Your task to perform on an android device: Clear the cart on costco.com. Image 0: 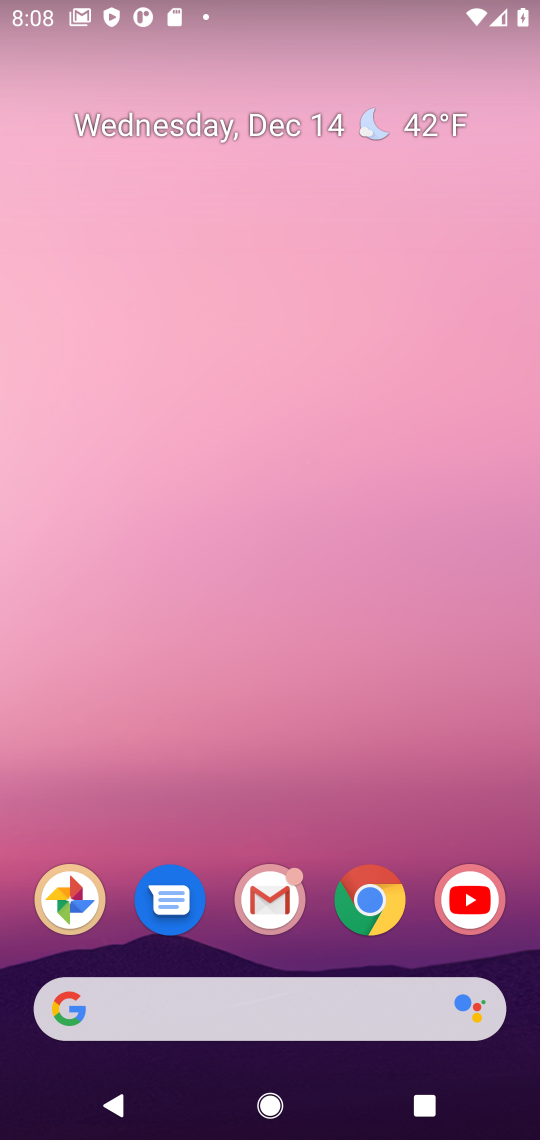
Step 0: click (368, 910)
Your task to perform on an android device: Clear the cart on costco.com. Image 1: 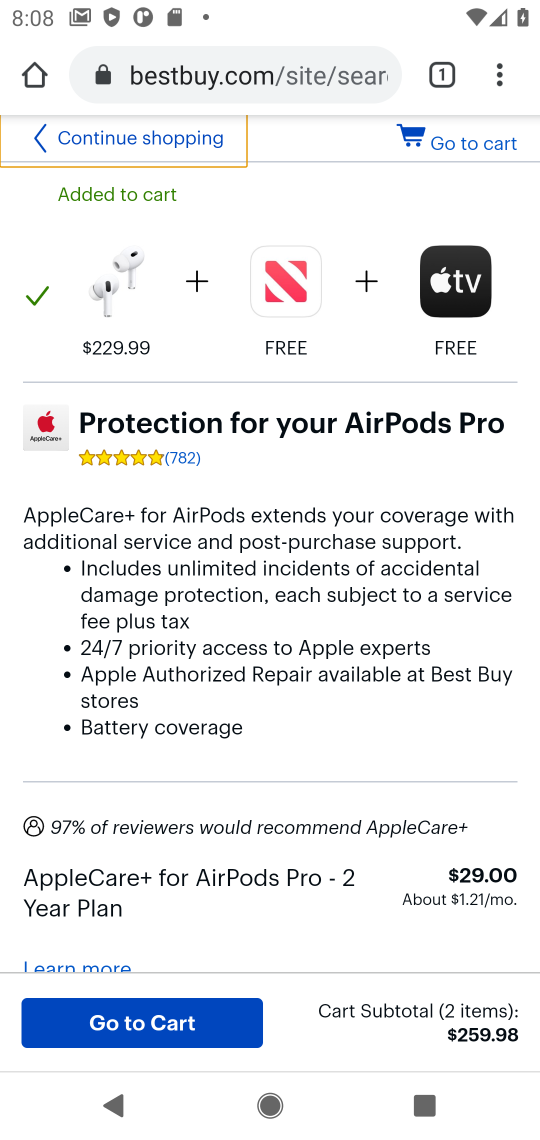
Step 1: click (193, 75)
Your task to perform on an android device: Clear the cart on costco.com. Image 2: 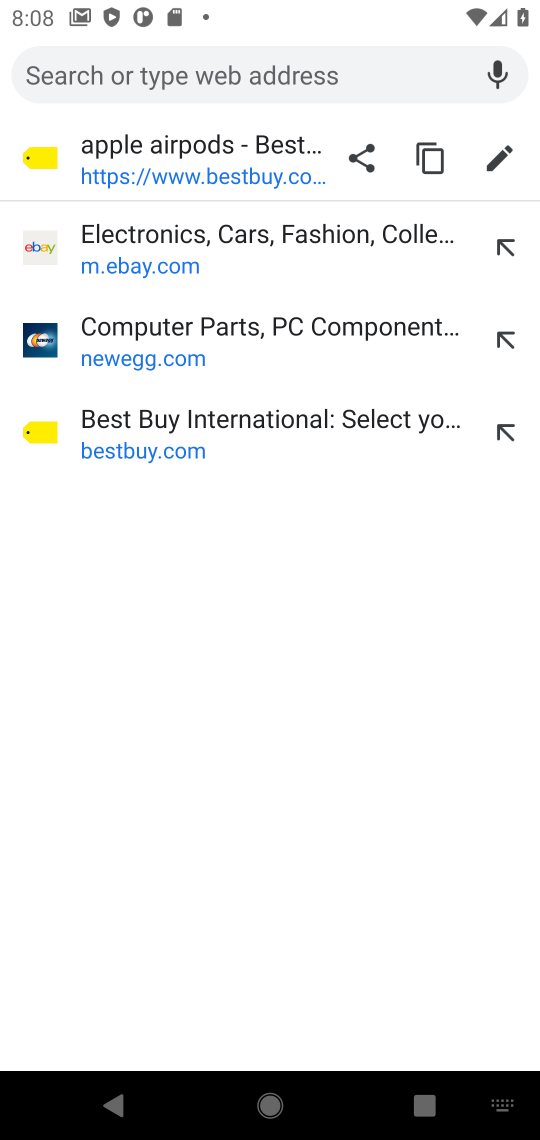
Step 2: type "costco.com"
Your task to perform on an android device: Clear the cart on costco.com. Image 3: 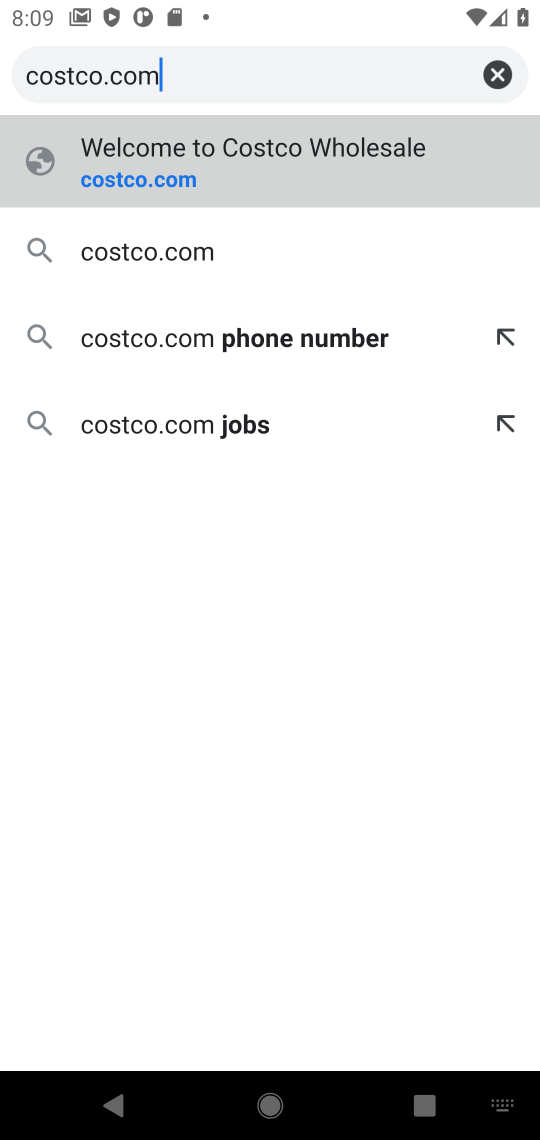
Step 3: click (184, 186)
Your task to perform on an android device: Clear the cart on costco.com. Image 4: 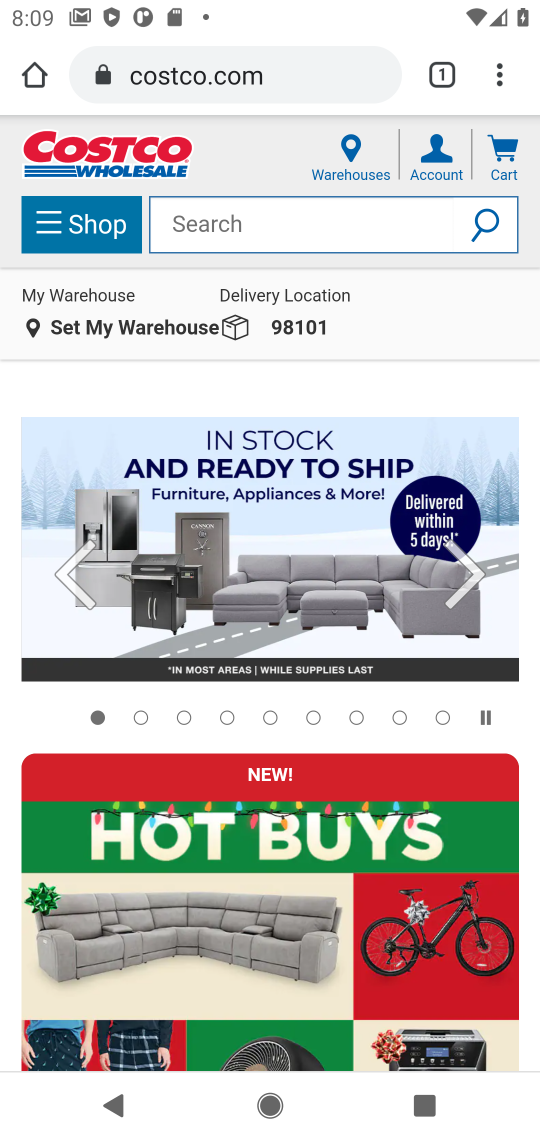
Step 4: click (504, 155)
Your task to perform on an android device: Clear the cart on costco.com. Image 5: 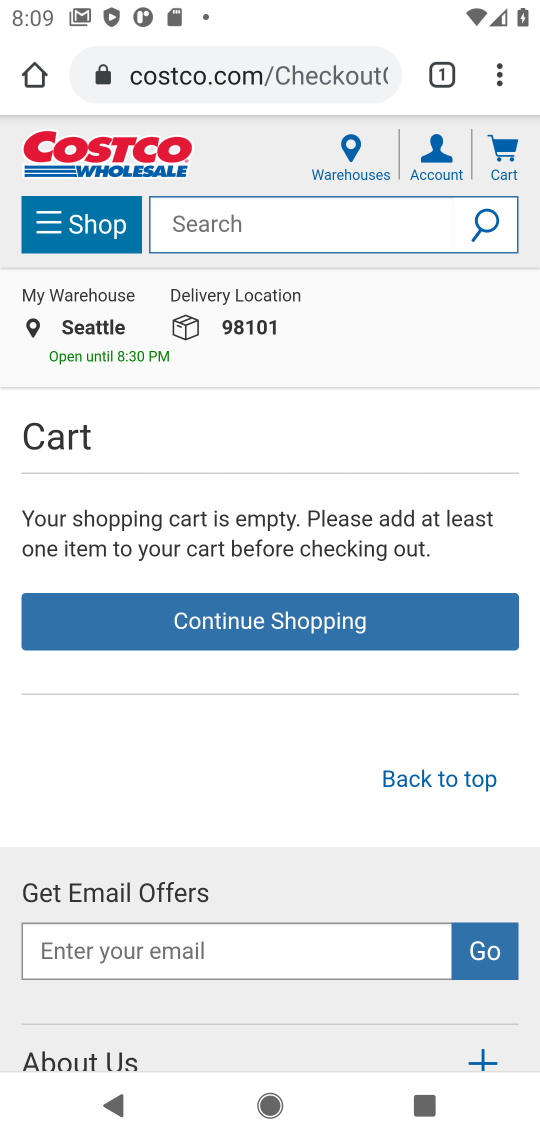
Step 5: task complete